Your task to perform on an android device: Open calendar and show me the third week of next month Image 0: 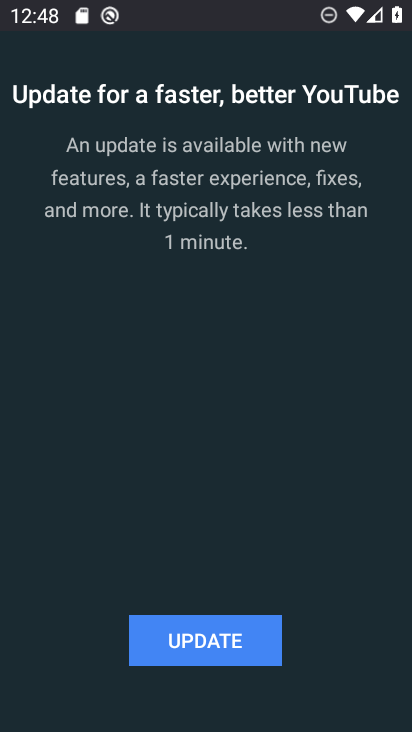
Step 0: press home button
Your task to perform on an android device: Open calendar and show me the third week of next month Image 1: 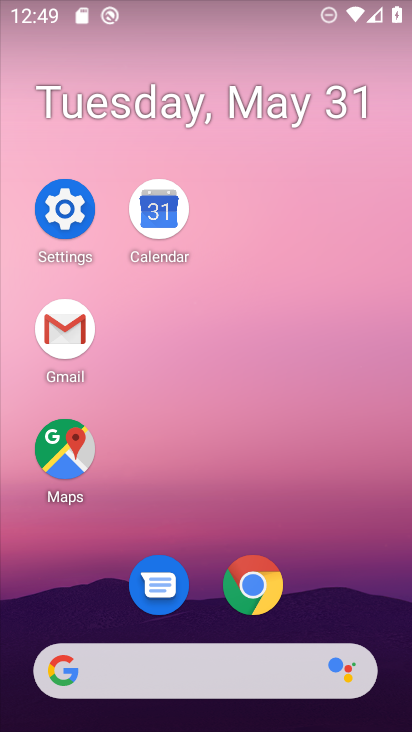
Step 1: click (159, 204)
Your task to perform on an android device: Open calendar and show me the third week of next month Image 2: 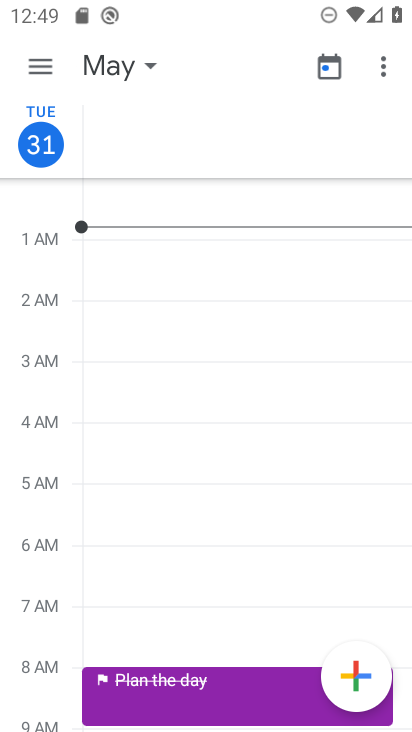
Step 2: click (139, 77)
Your task to perform on an android device: Open calendar and show me the third week of next month Image 3: 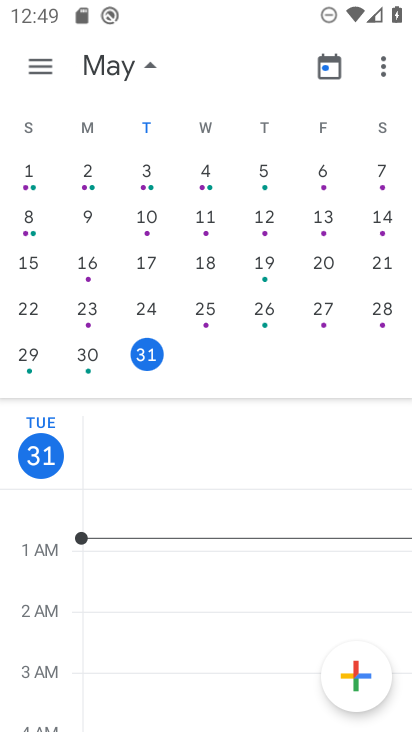
Step 3: drag from (377, 242) to (17, 172)
Your task to perform on an android device: Open calendar and show me the third week of next month Image 4: 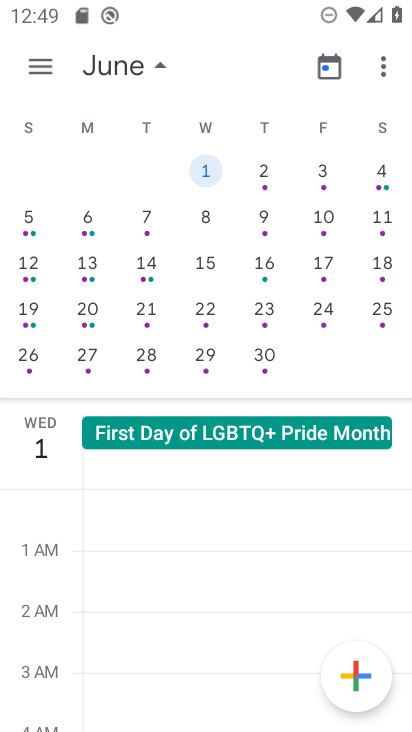
Step 4: click (38, 66)
Your task to perform on an android device: Open calendar and show me the third week of next month Image 5: 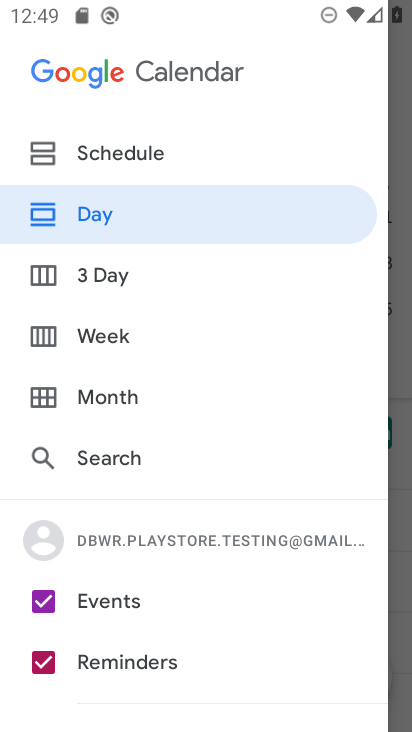
Step 5: click (114, 342)
Your task to perform on an android device: Open calendar and show me the third week of next month Image 6: 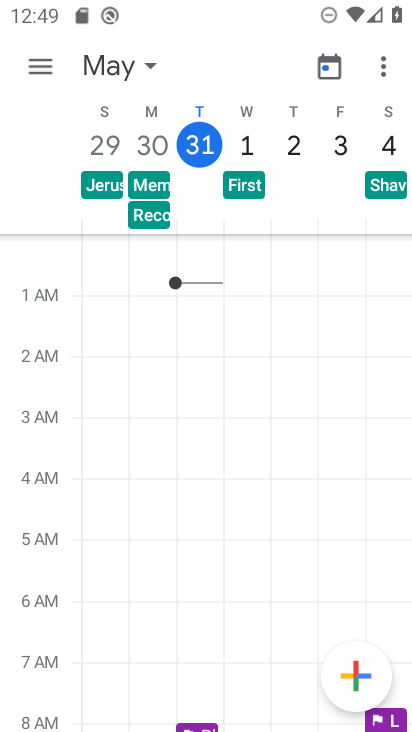
Step 6: task complete